Your task to perform on an android device: Do I have any events tomorrow? Image 0: 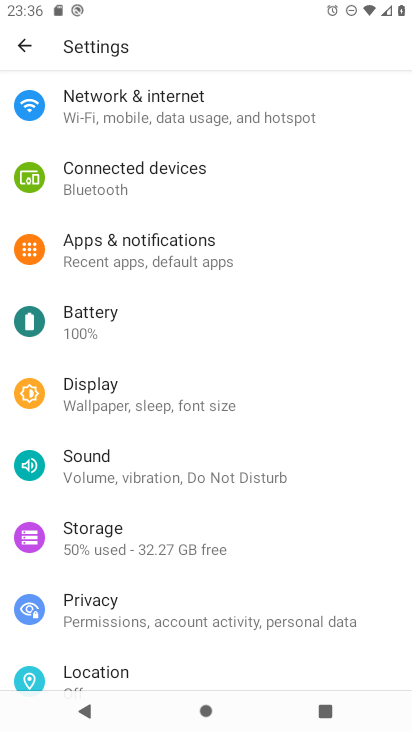
Step 0: press home button
Your task to perform on an android device: Do I have any events tomorrow? Image 1: 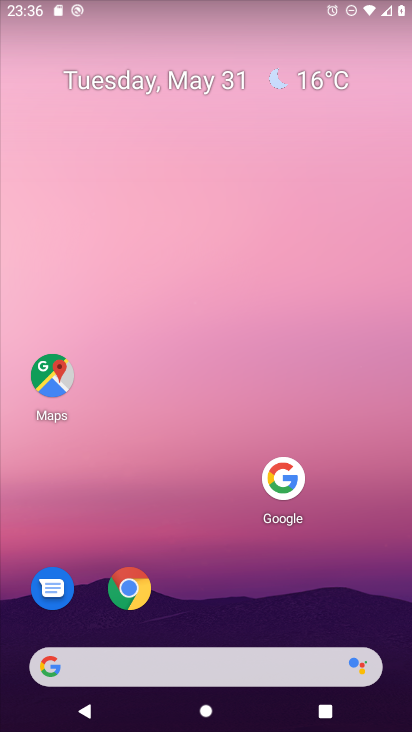
Step 1: drag from (251, 206) to (255, 160)
Your task to perform on an android device: Do I have any events tomorrow? Image 2: 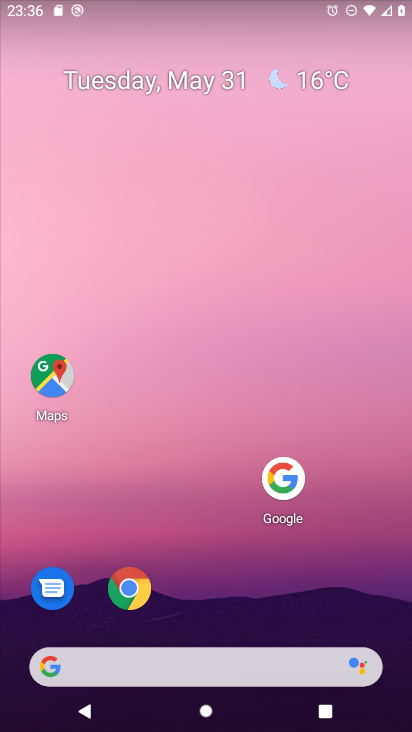
Step 2: drag from (219, 603) to (304, 91)
Your task to perform on an android device: Do I have any events tomorrow? Image 3: 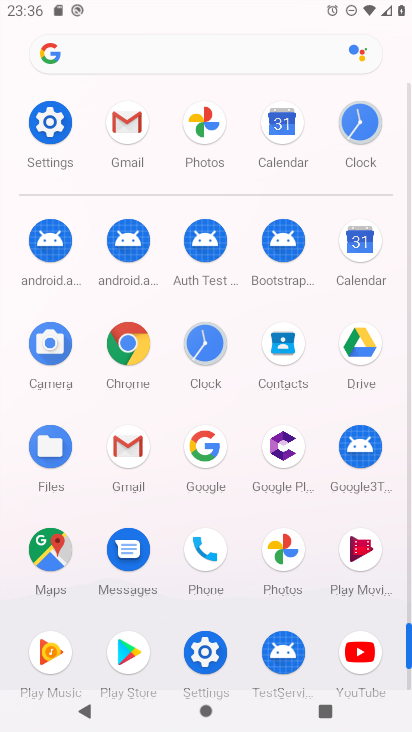
Step 3: click (367, 246)
Your task to perform on an android device: Do I have any events tomorrow? Image 4: 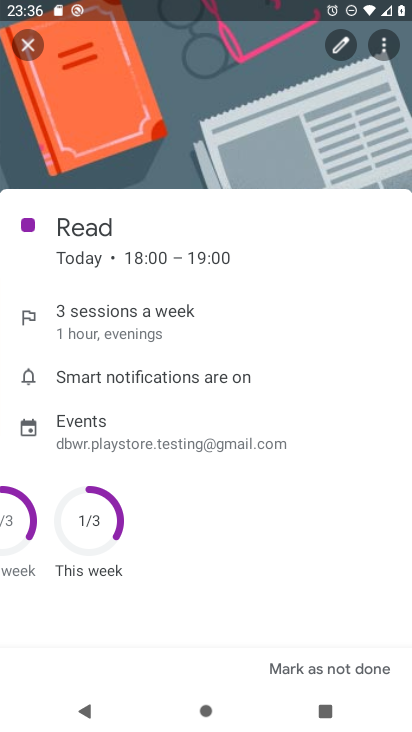
Step 4: click (26, 52)
Your task to perform on an android device: Do I have any events tomorrow? Image 5: 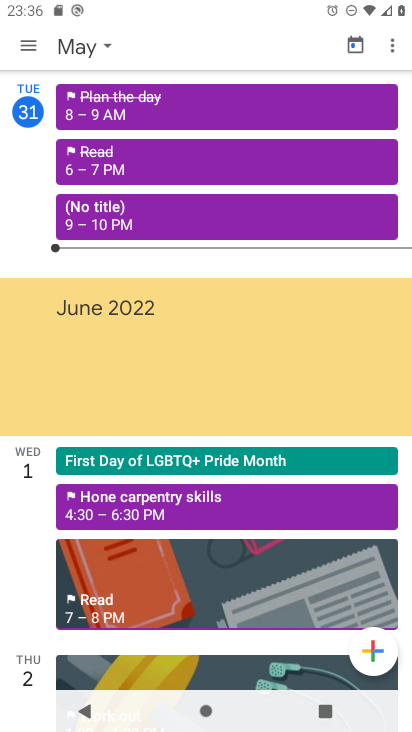
Step 5: click (66, 30)
Your task to perform on an android device: Do I have any events tomorrow? Image 6: 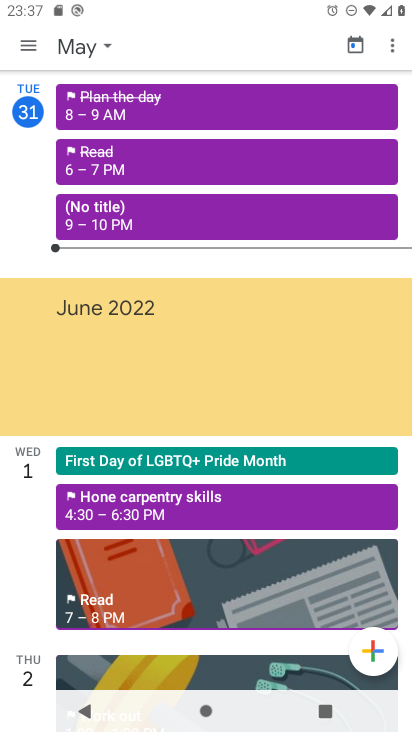
Step 6: click (79, 43)
Your task to perform on an android device: Do I have any events tomorrow? Image 7: 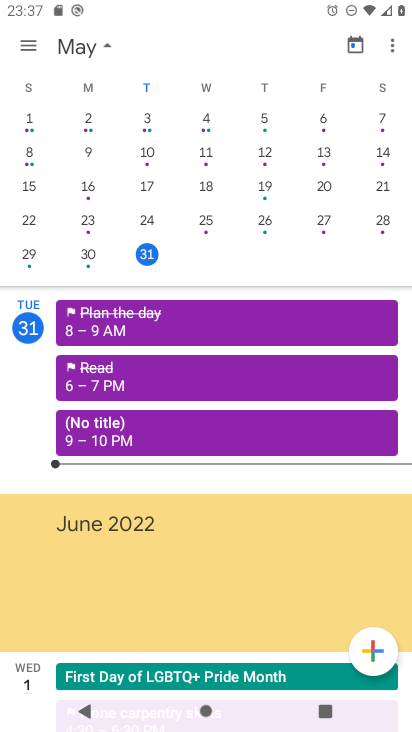
Step 7: drag from (351, 171) to (31, 213)
Your task to perform on an android device: Do I have any events tomorrow? Image 8: 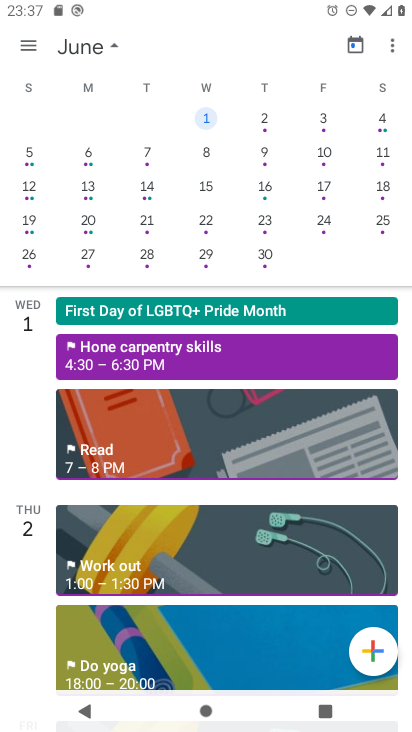
Step 8: click (200, 116)
Your task to perform on an android device: Do I have any events tomorrow? Image 9: 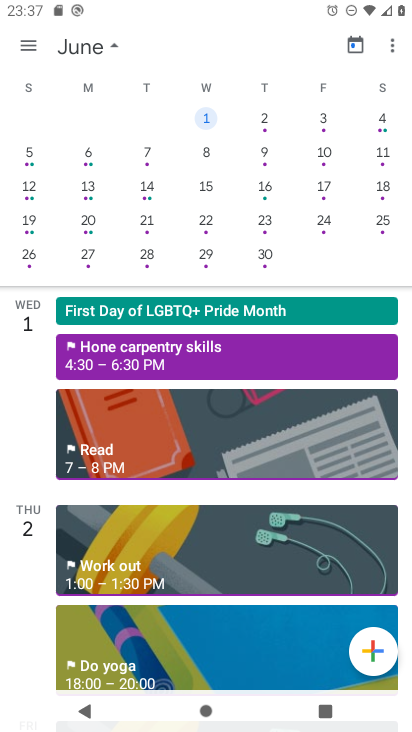
Step 9: click (211, 123)
Your task to perform on an android device: Do I have any events tomorrow? Image 10: 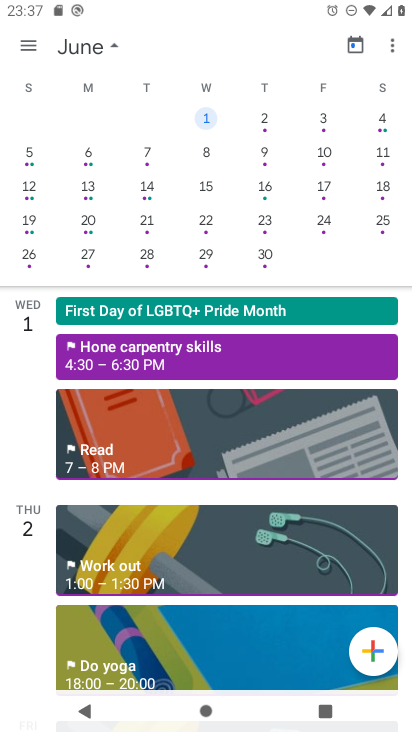
Step 10: click (24, 41)
Your task to perform on an android device: Do I have any events tomorrow? Image 11: 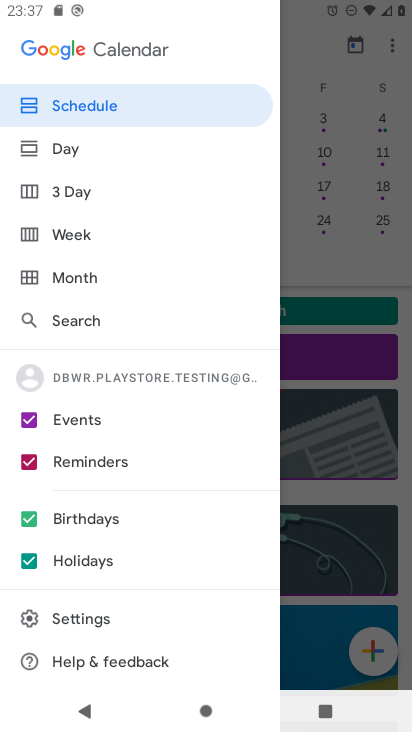
Step 11: click (82, 110)
Your task to perform on an android device: Do I have any events tomorrow? Image 12: 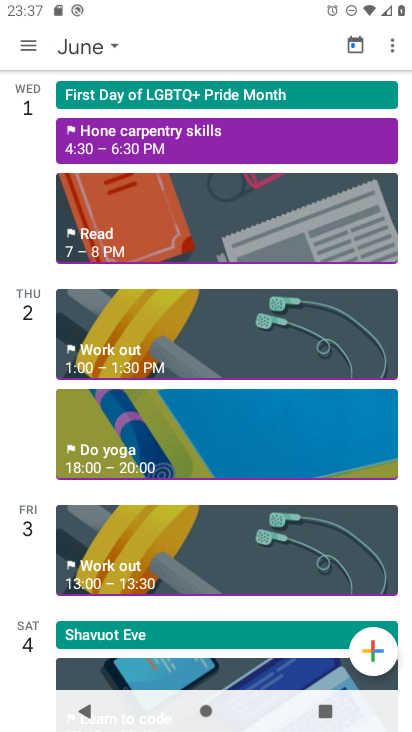
Step 12: click (138, 139)
Your task to perform on an android device: Do I have any events tomorrow? Image 13: 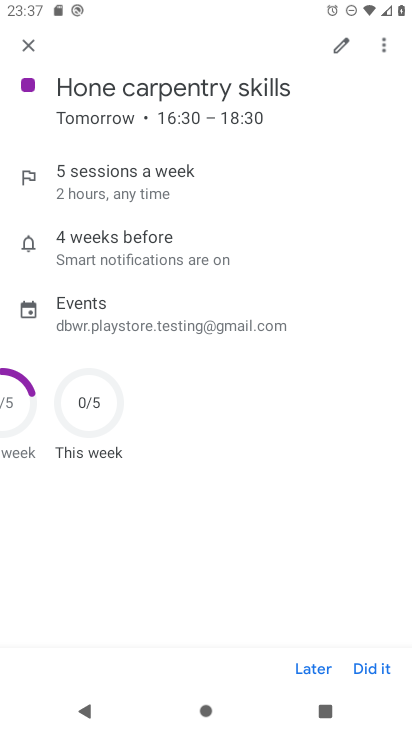
Step 13: task complete